Your task to perform on an android device: turn off javascript in the chrome app Image 0: 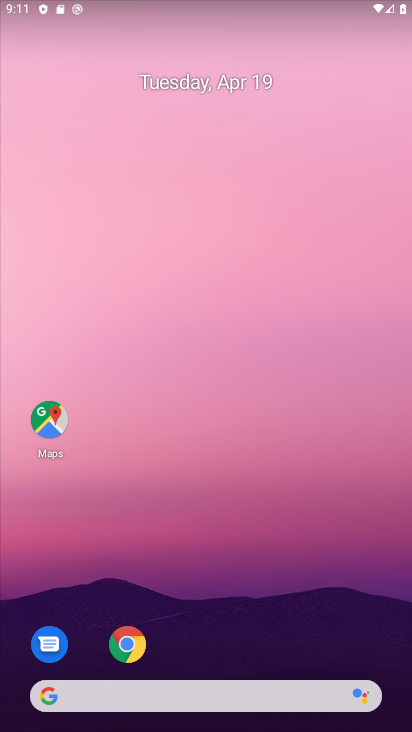
Step 0: click (125, 641)
Your task to perform on an android device: turn off javascript in the chrome app Image 1: 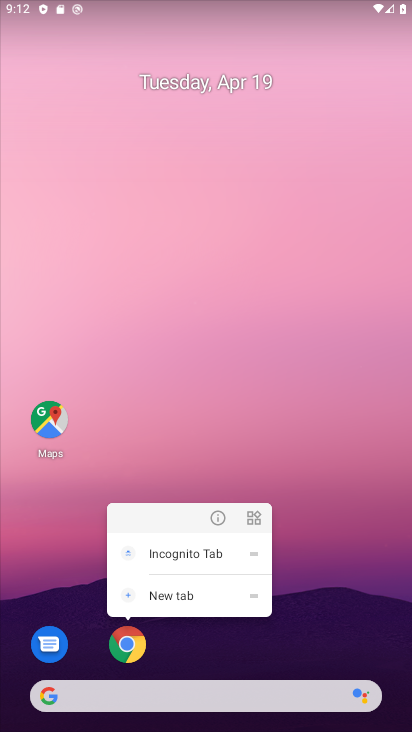
Step 1: click (351, 521)
Your task to perform on an android device: turn off javascript in the chrome app Image 2: 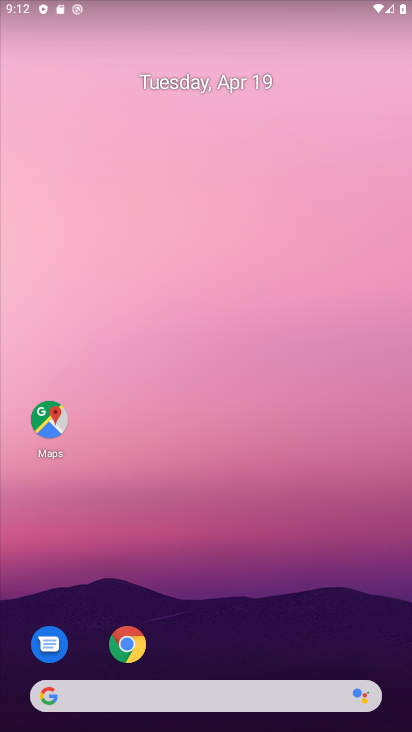
Step 2: drag from (369, 654) to (204, 56)
Your task to perform on an android device: turn off javascript in the chrome app Image 3: 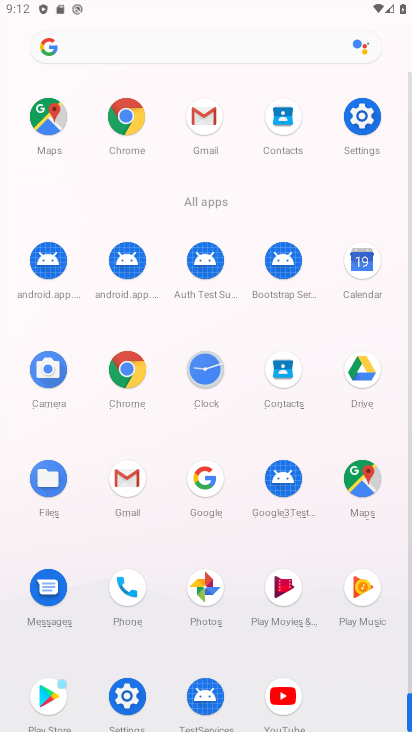
Step 3: click (135, 114)
Your task to perform on an android device: turn off javascript in the chrome app Image 4: 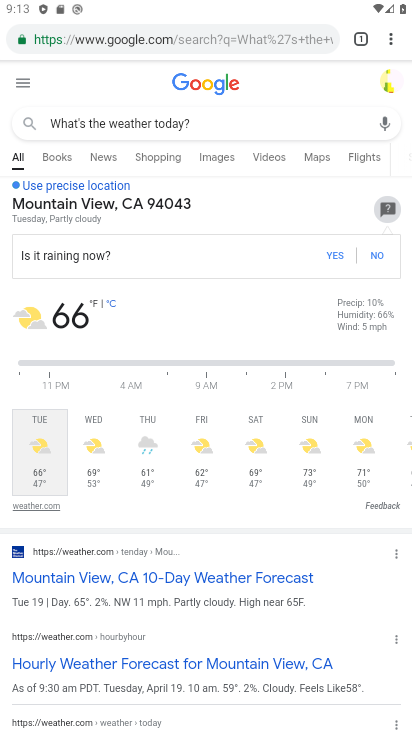
Step 4: drag from (388, 39) to (280, 424)
Your task to perform on an android device: turn off javascript in the chrome app Image 5: 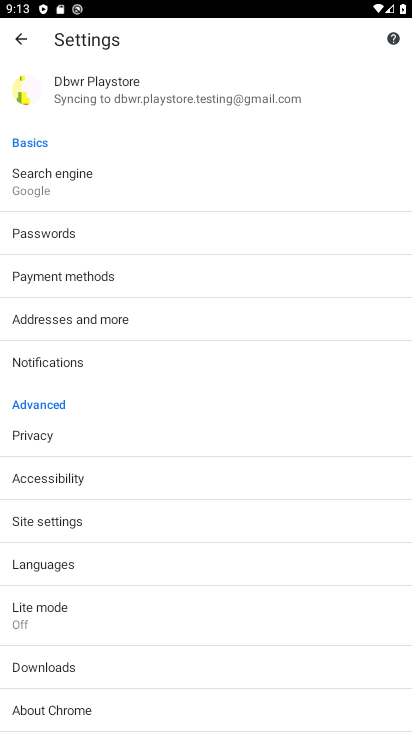
Step 5: click (29, 514)
Your task to perform on an android device: turn off javascript in the chrome app Image 6: 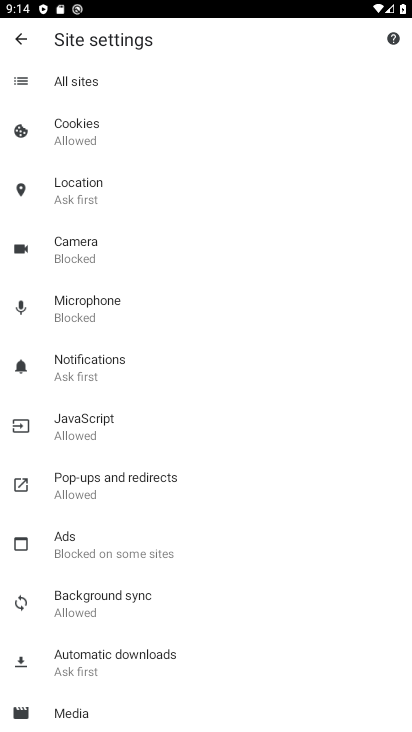
Step 6: click (92, 434)
Your task to perform on an android device: turn off javascript in the chrome app Image 7: 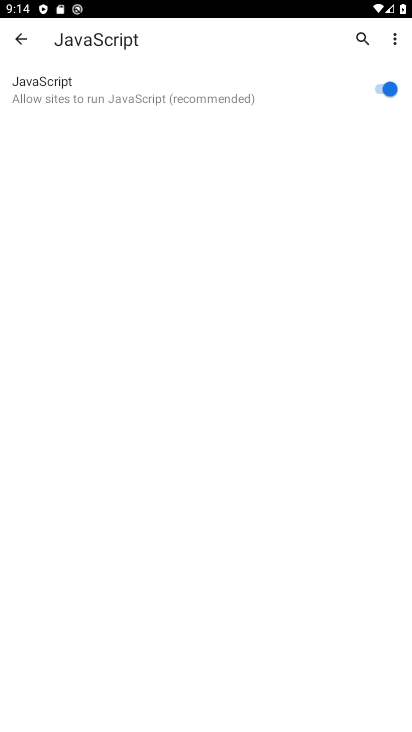
Step 7: click (303, 98)
Your task to perform on an android device: turn off javascript in the chrome app Image 8: 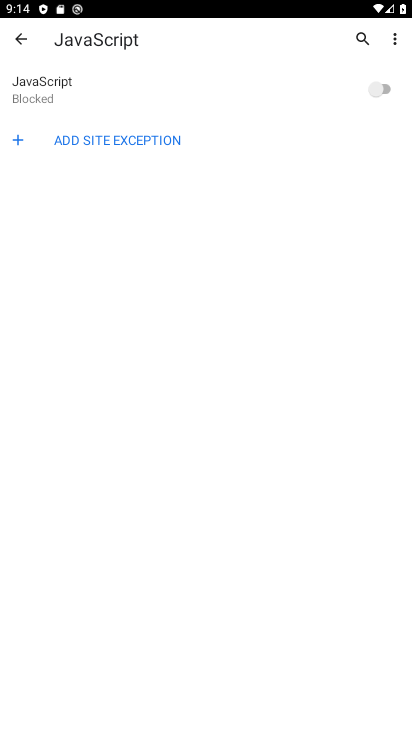
Step 8: task complete